Your task to perform on an android device: Search for the new iphone 13 pro on Etsy. Image 0: 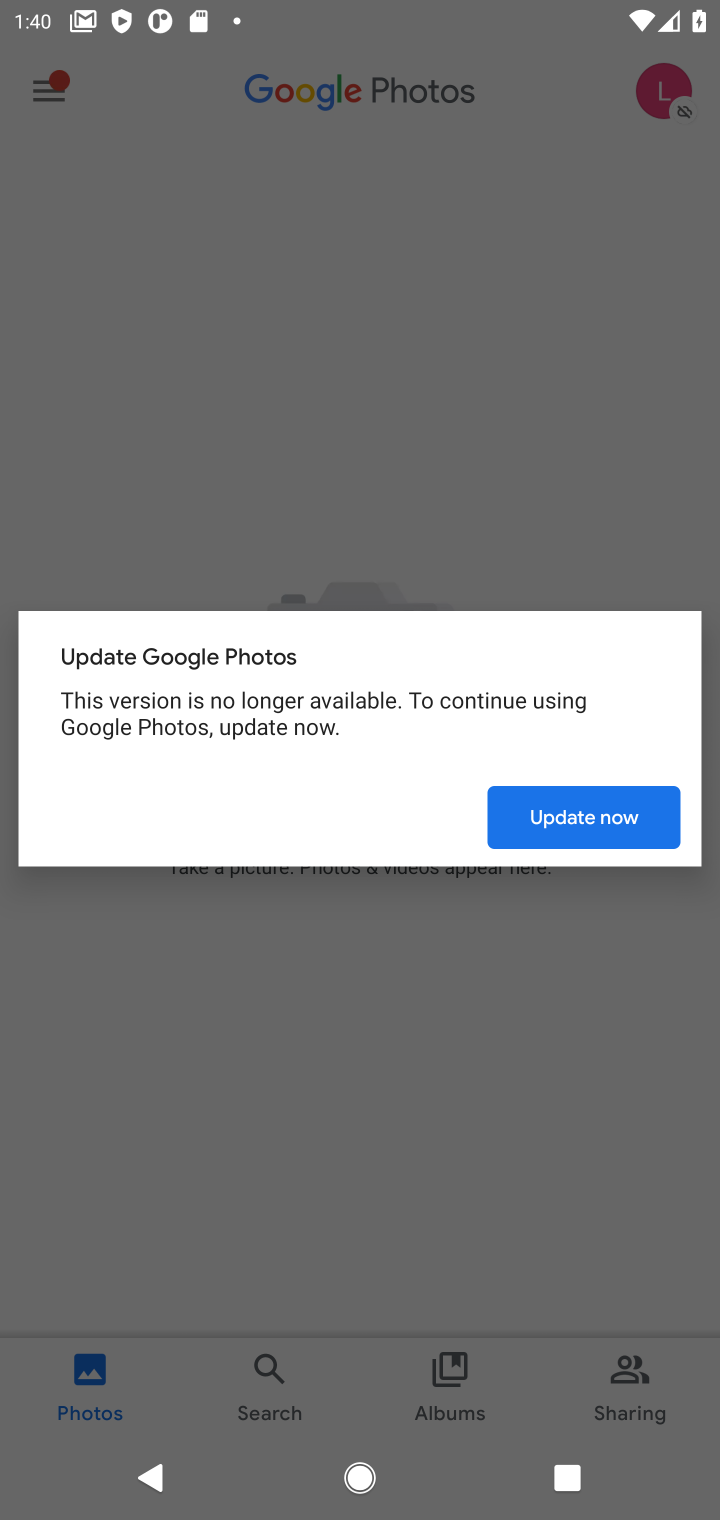
Step 0: press home button
Your task to perform on an android device: Search for the new iphone 13 pro on Etsy. Image 1: 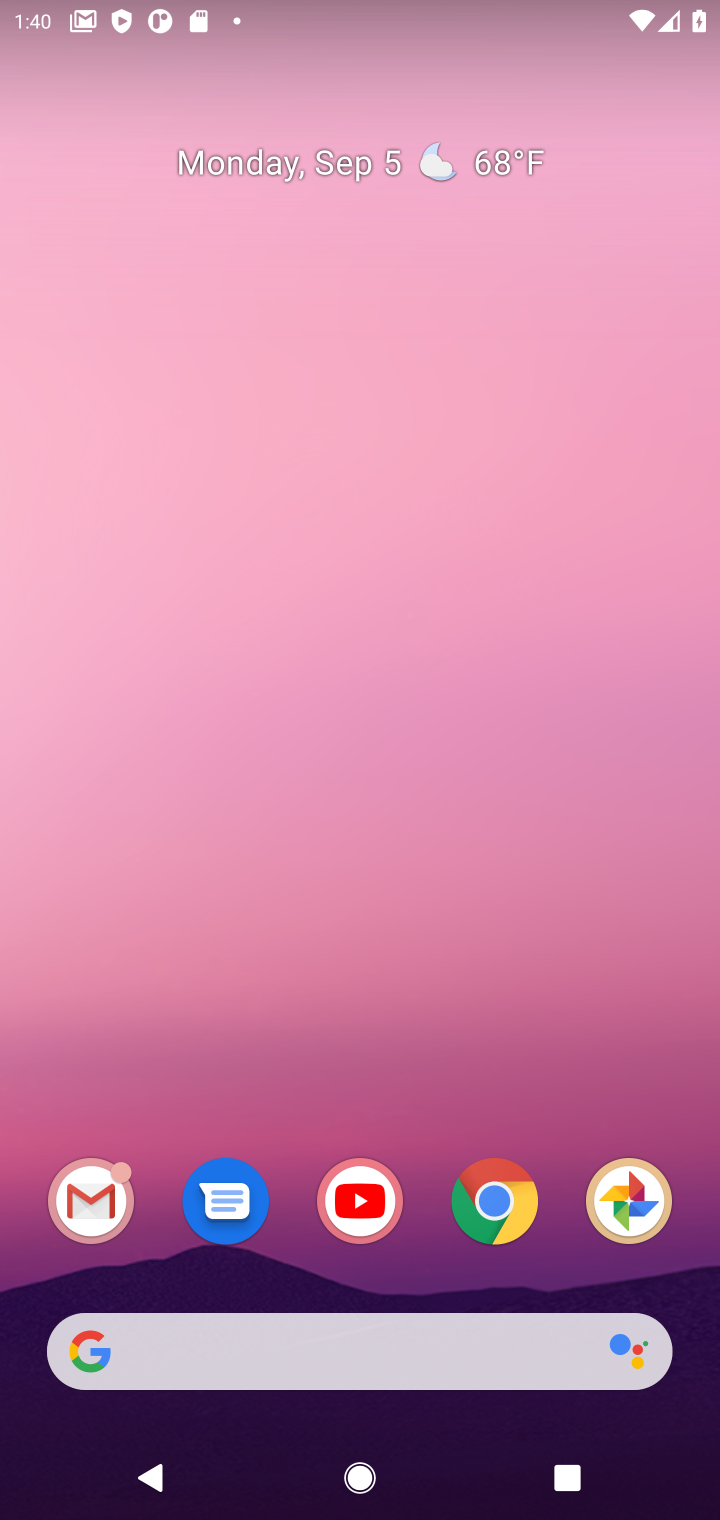
Step 1: click (498, 1214)
Your task to perform on an android device: Search for the new iphone 13 pro on Etsy. Image 2: 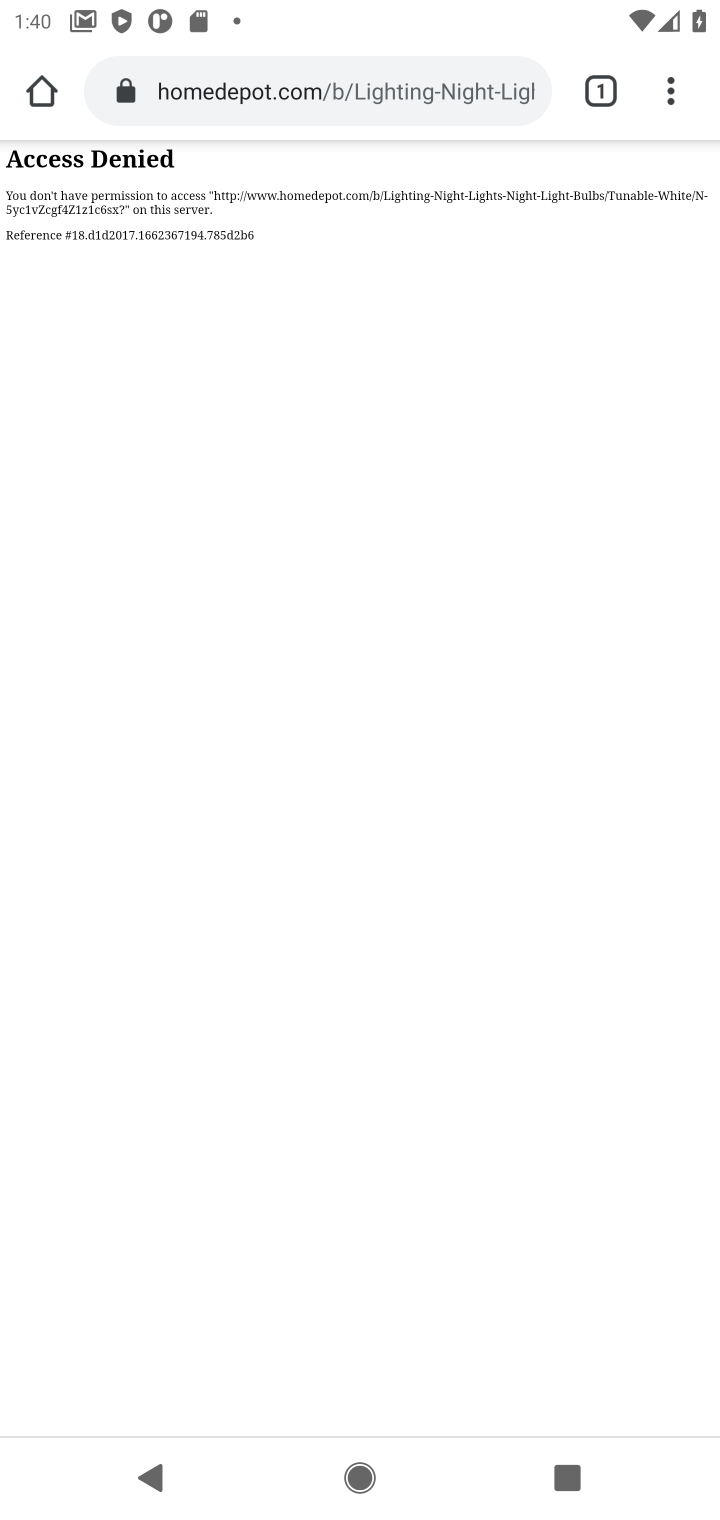
Step 2: click (349, 91)
Your task to perform on an android device: Search for the new iphone 13 pro on Etsy. Image 3: 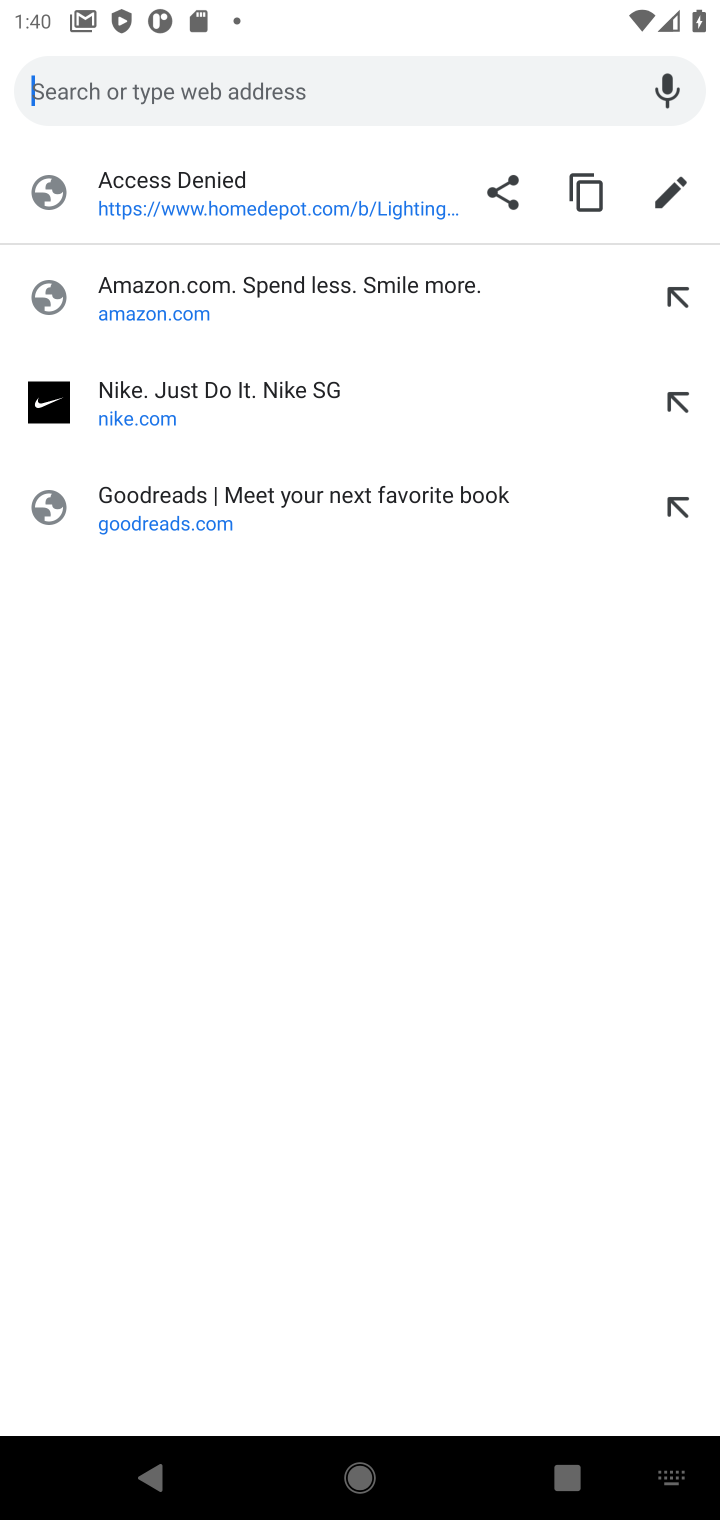
Step 3: type "Etsy"
Your task to perform on an android device: Search for the new iphone 13 pro on Etsy. Image 4: 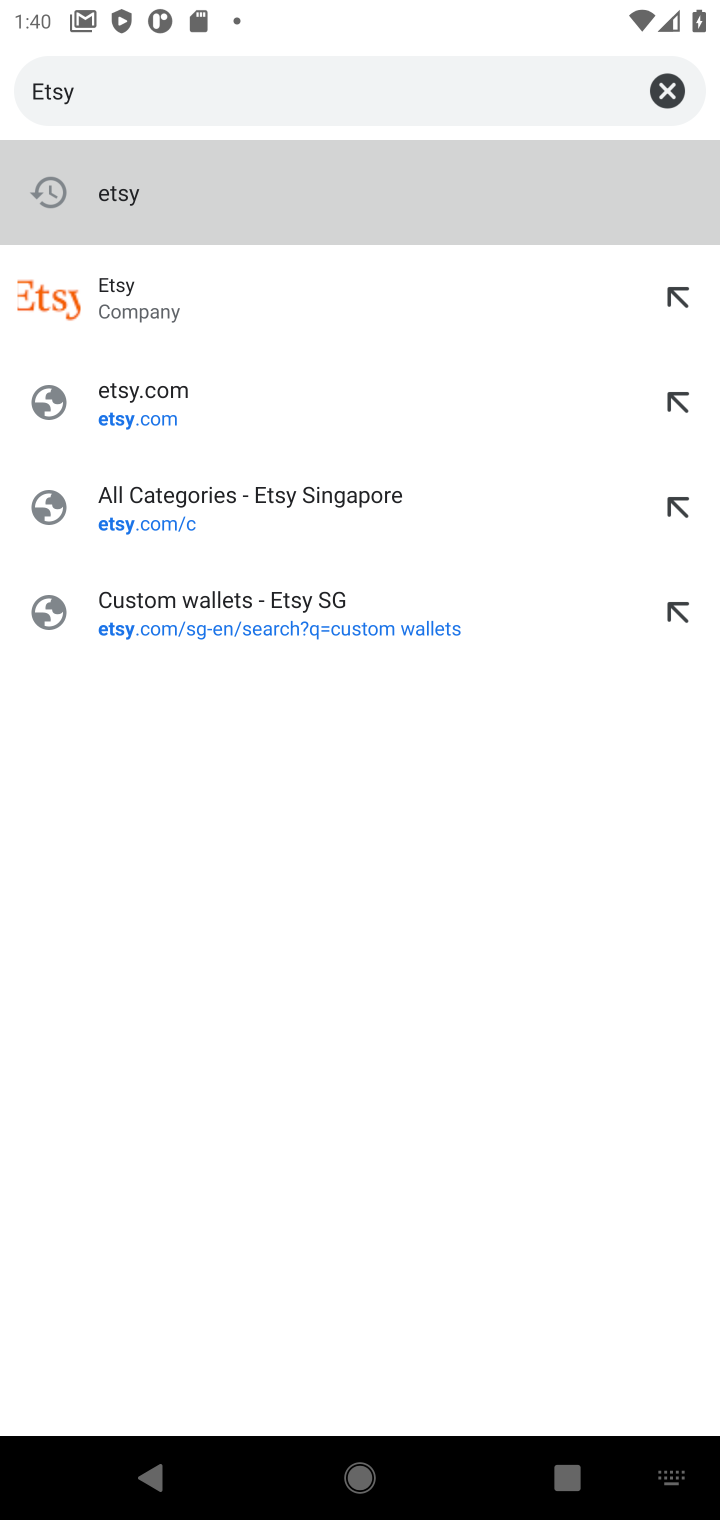
Step 4: press enter
Your task to perform on an android device: Search for the new iphone 13 pro on Etsy. Image 5: 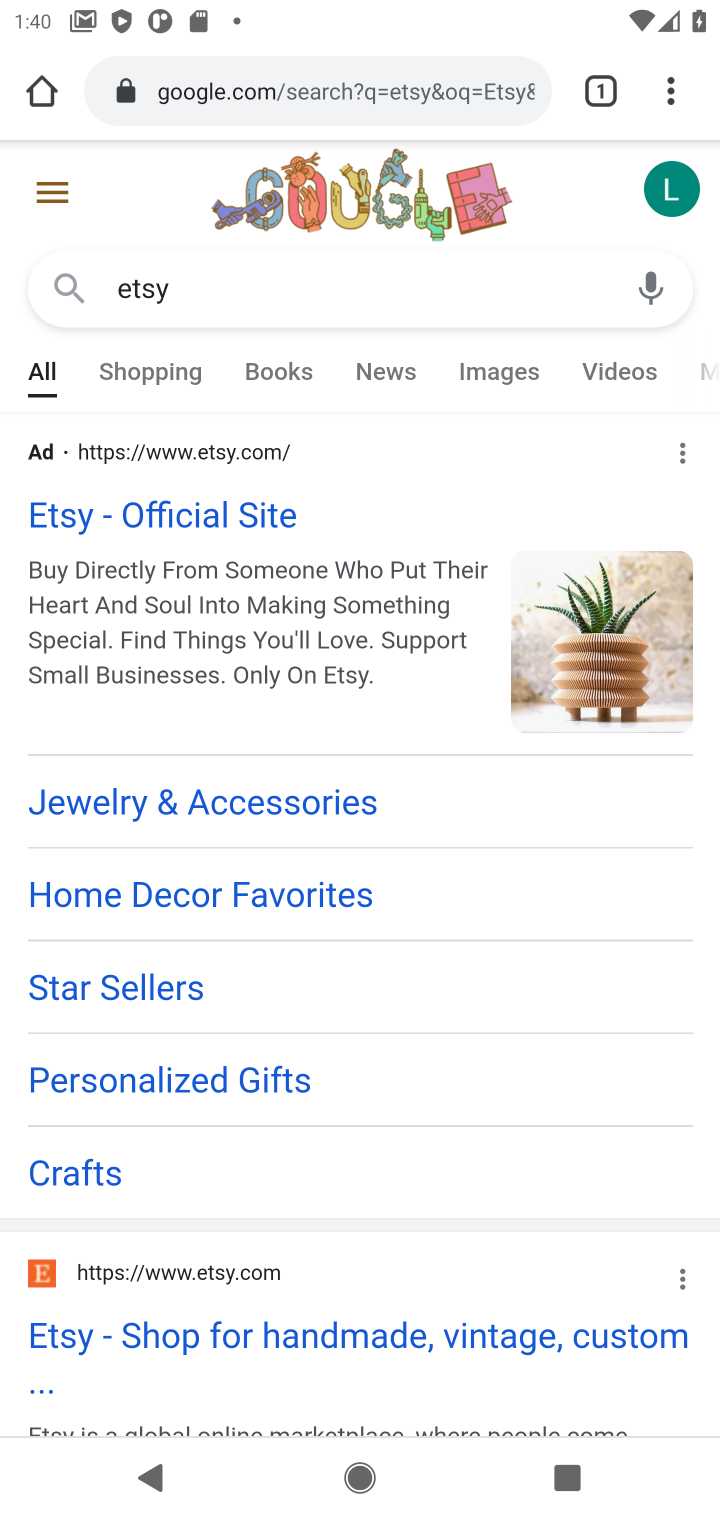
Step 5: click (163, 512)
Your task to perform on an android device: Search for the new iphone 13 pro on Etsy. Image 6: 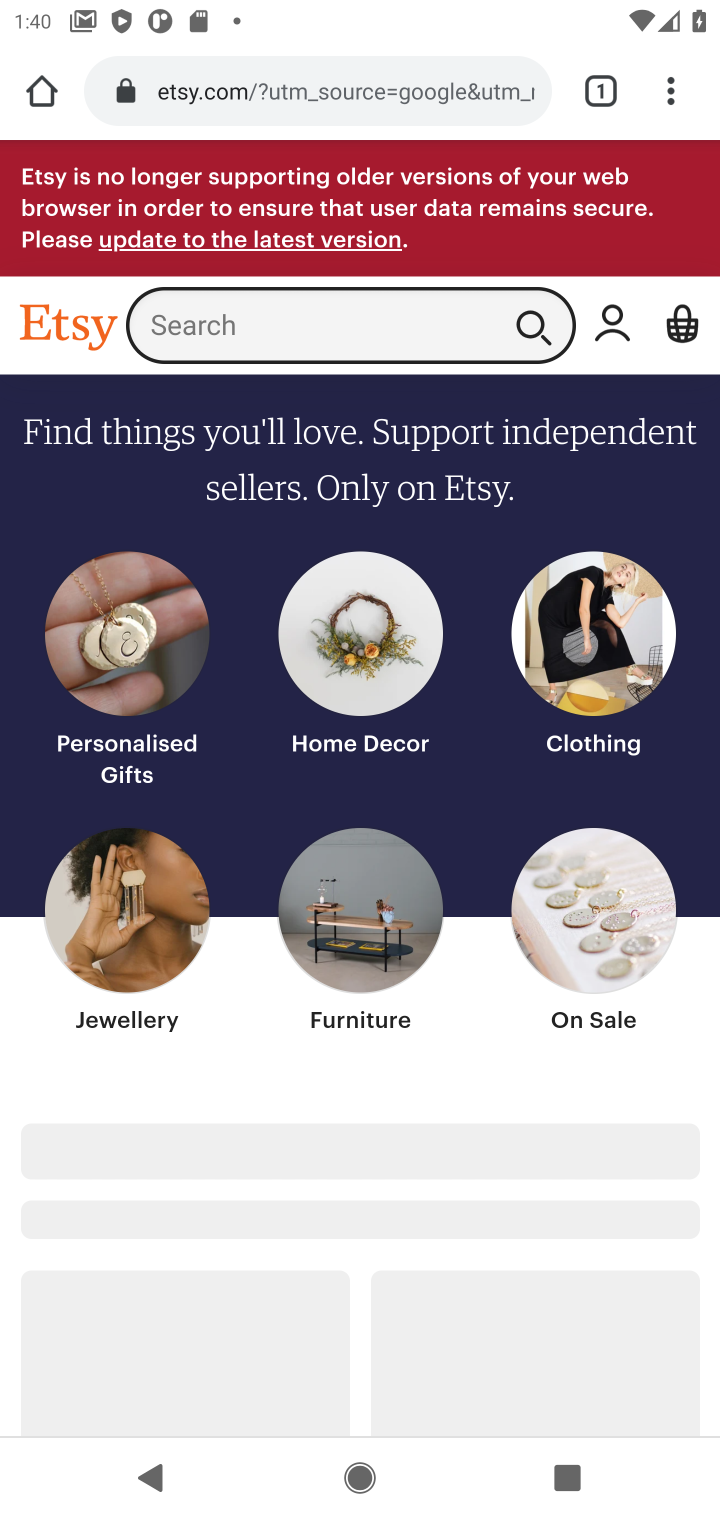
Step 6: click (439, 92)
Your task to perform on an android device: Search for the new iphone 13 pro on Etsy. Image 7: 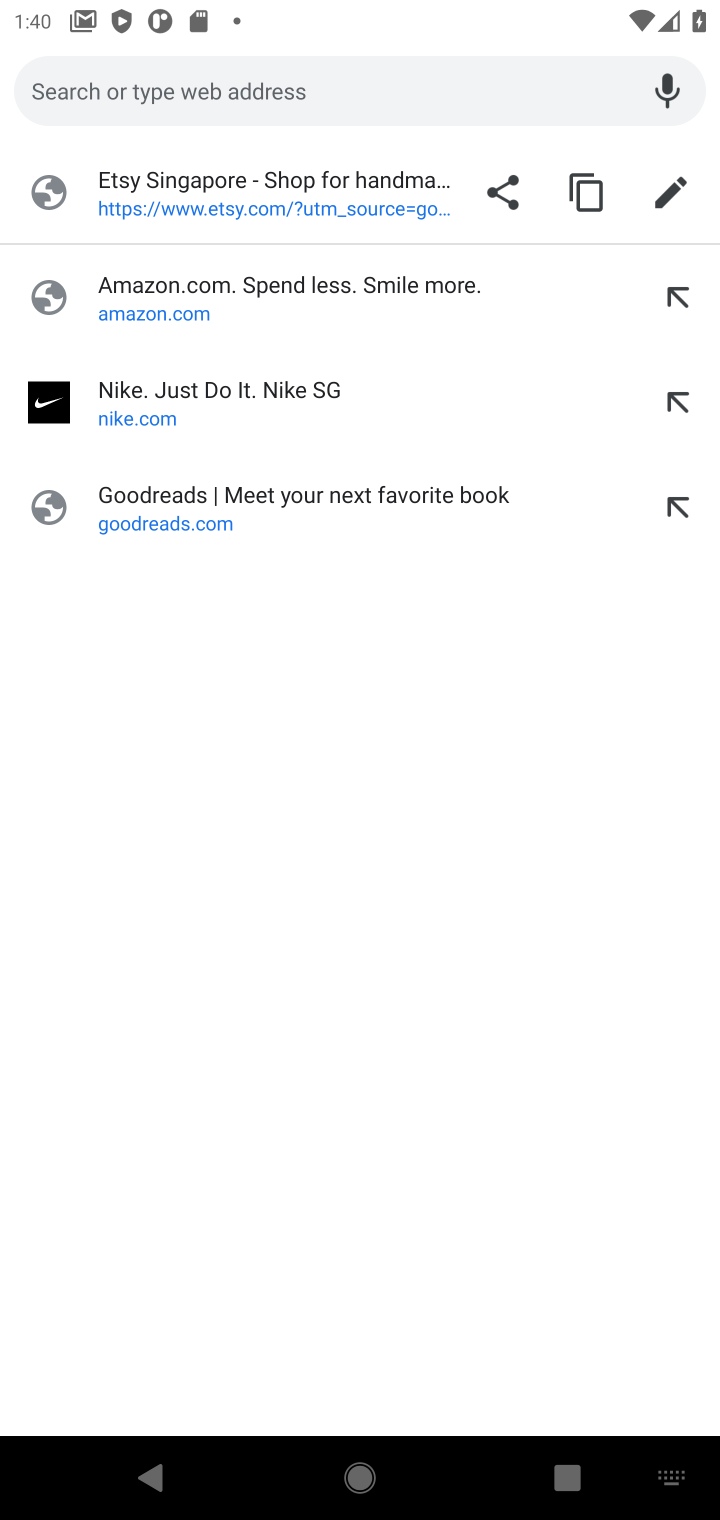
Step 7: press enter
Your task to perform on an android device: Search for the new iphone 13 pro on Etsy. Image 8: 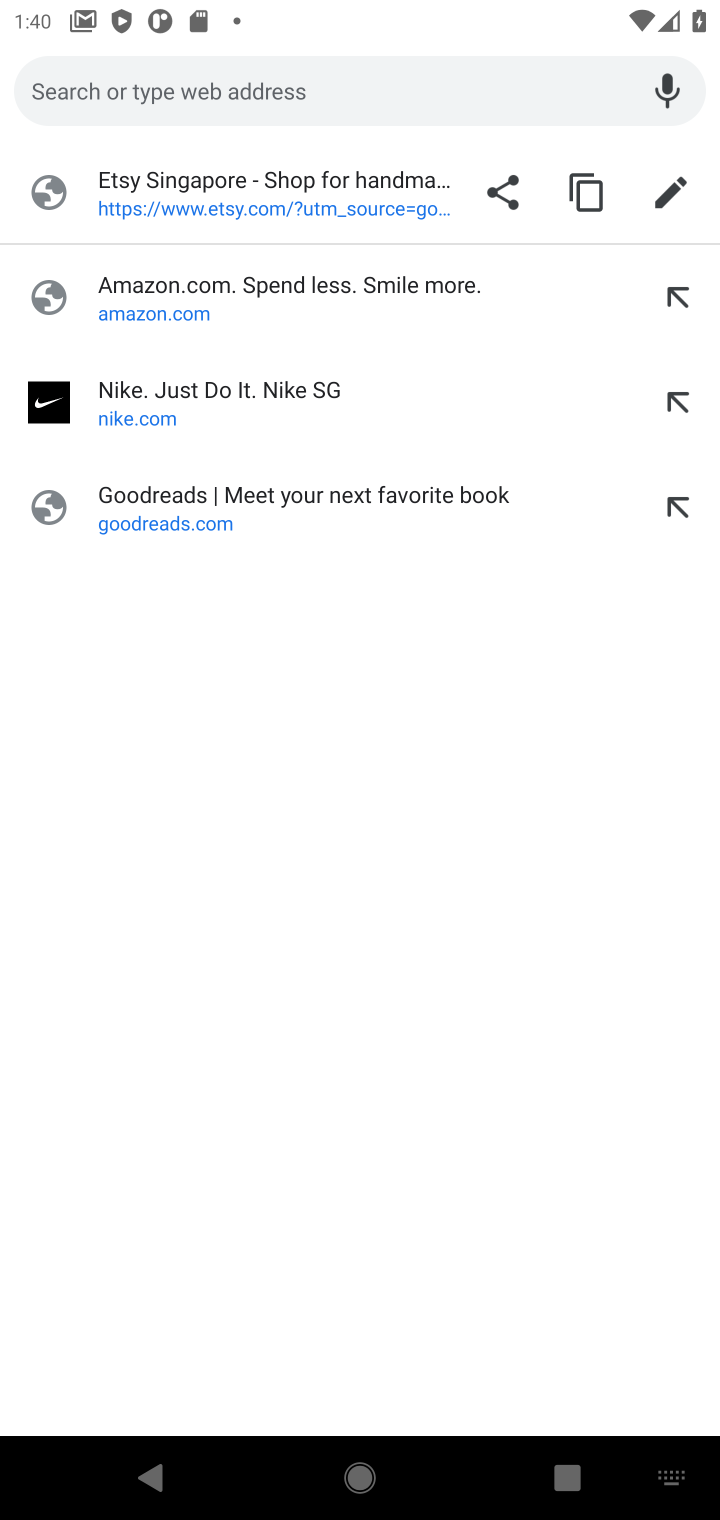
Step 8: type " iphone 13 pro"
Your task to perform on an android device: Search for the new iphone 13 pro on Etsy. Image 9: 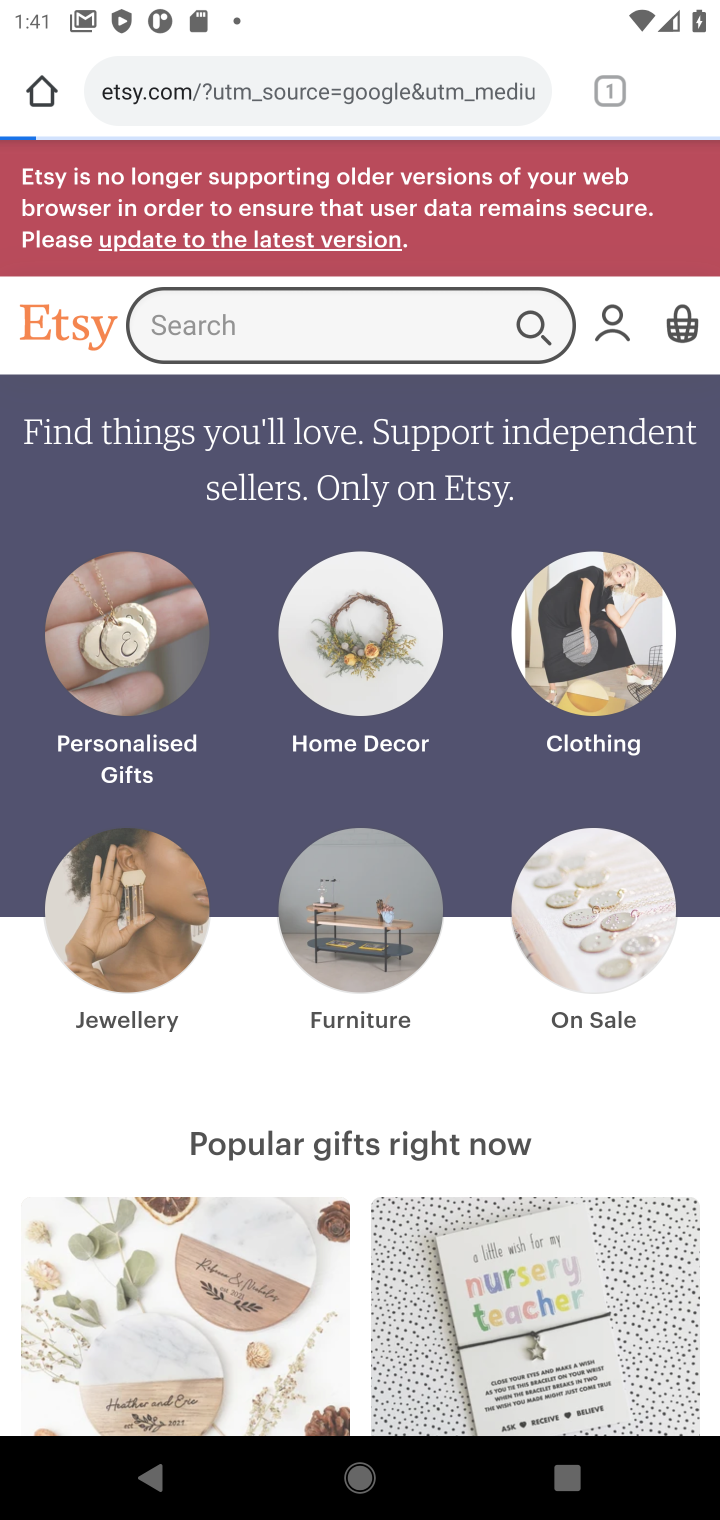
Step 9: click (286, 84)
Your task to perform on an android device: Search for the new iphone 13 pro on Etsy. Image 10: 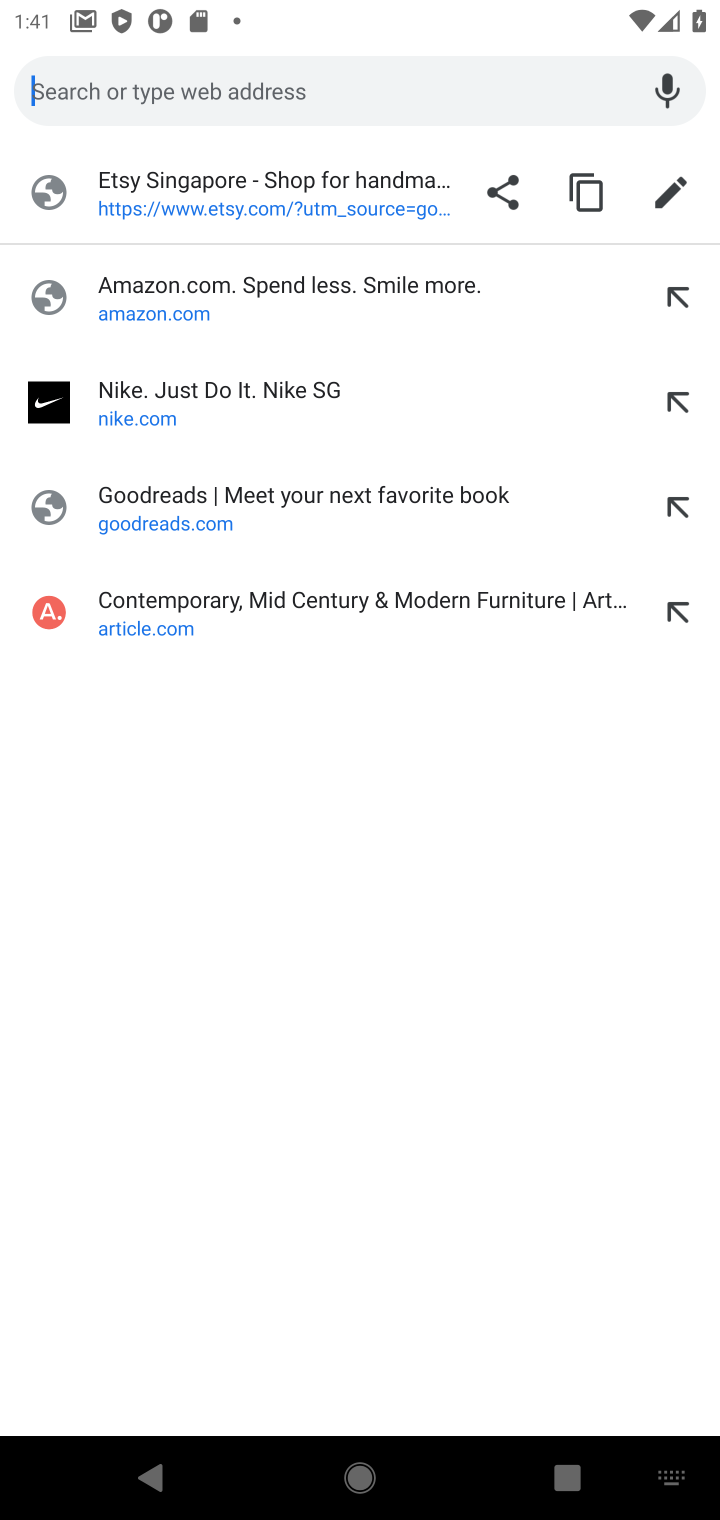
Step 10: press back button
Your task to perform on an android device: Search for the new iphone 13 pro on Etsy. Image 11: 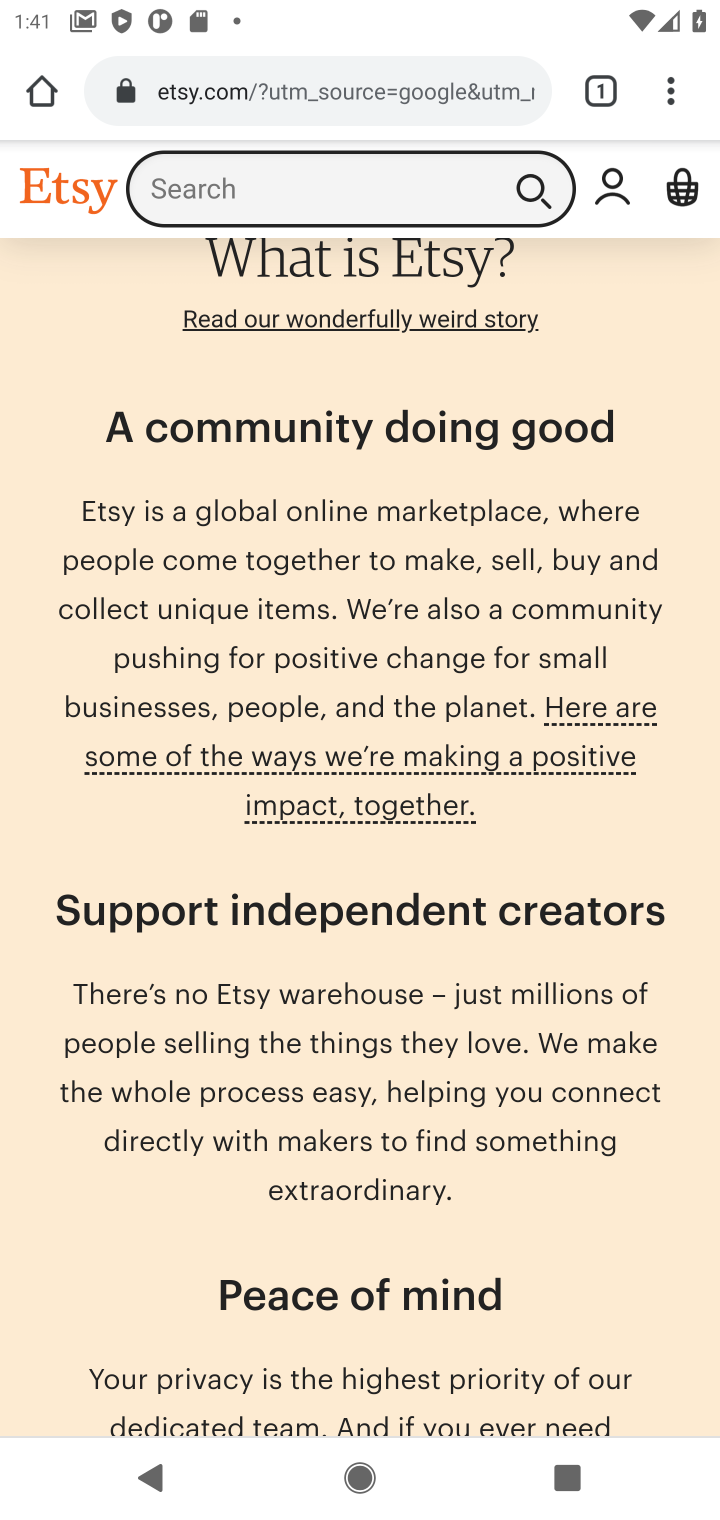
Step 11: click (372, 189)
Your task to perform on an android device: Search for the new iphone 13 pro on Etsy. Image 12: 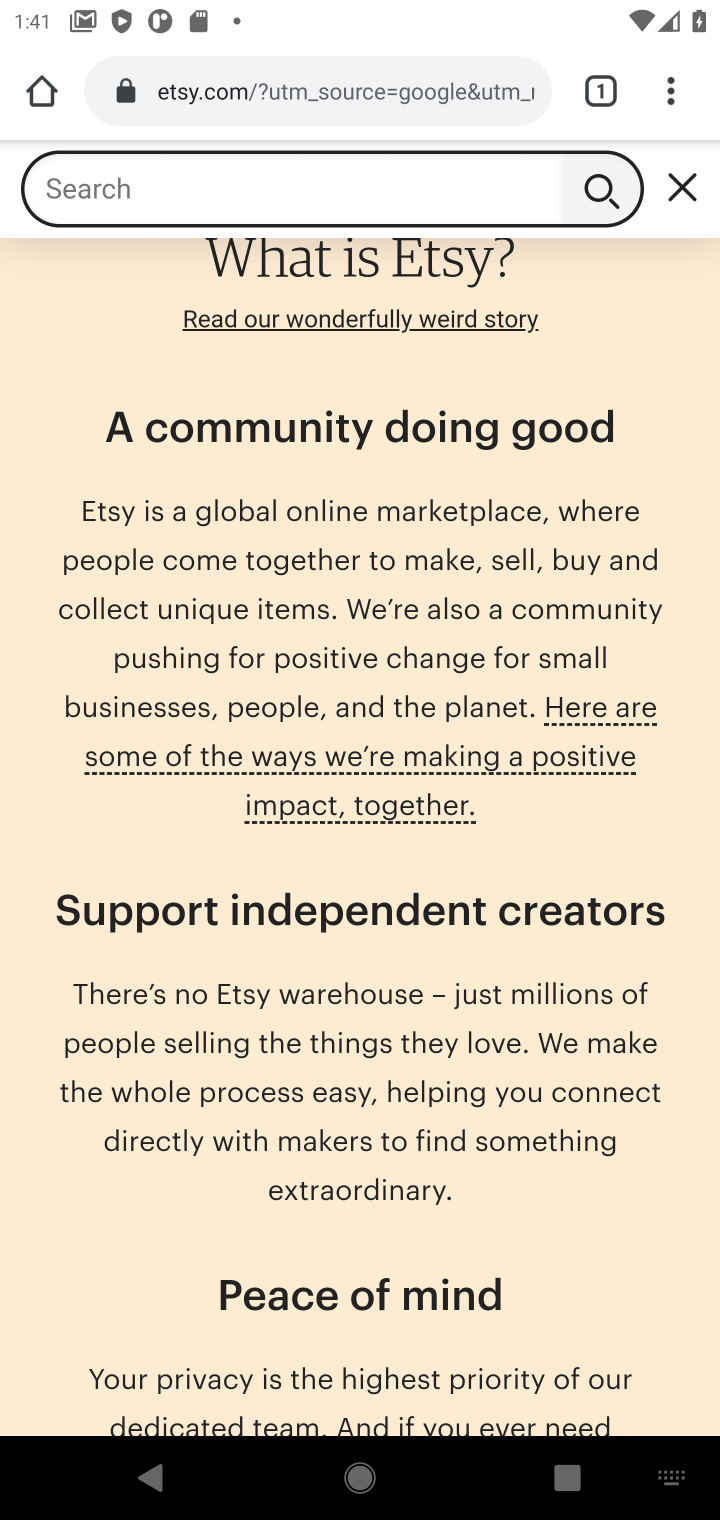
Step 12: type "iphone 13 pro"
Your task to perform on an android device: Search for the new iphone 13 pro on Etsy. Image 13: 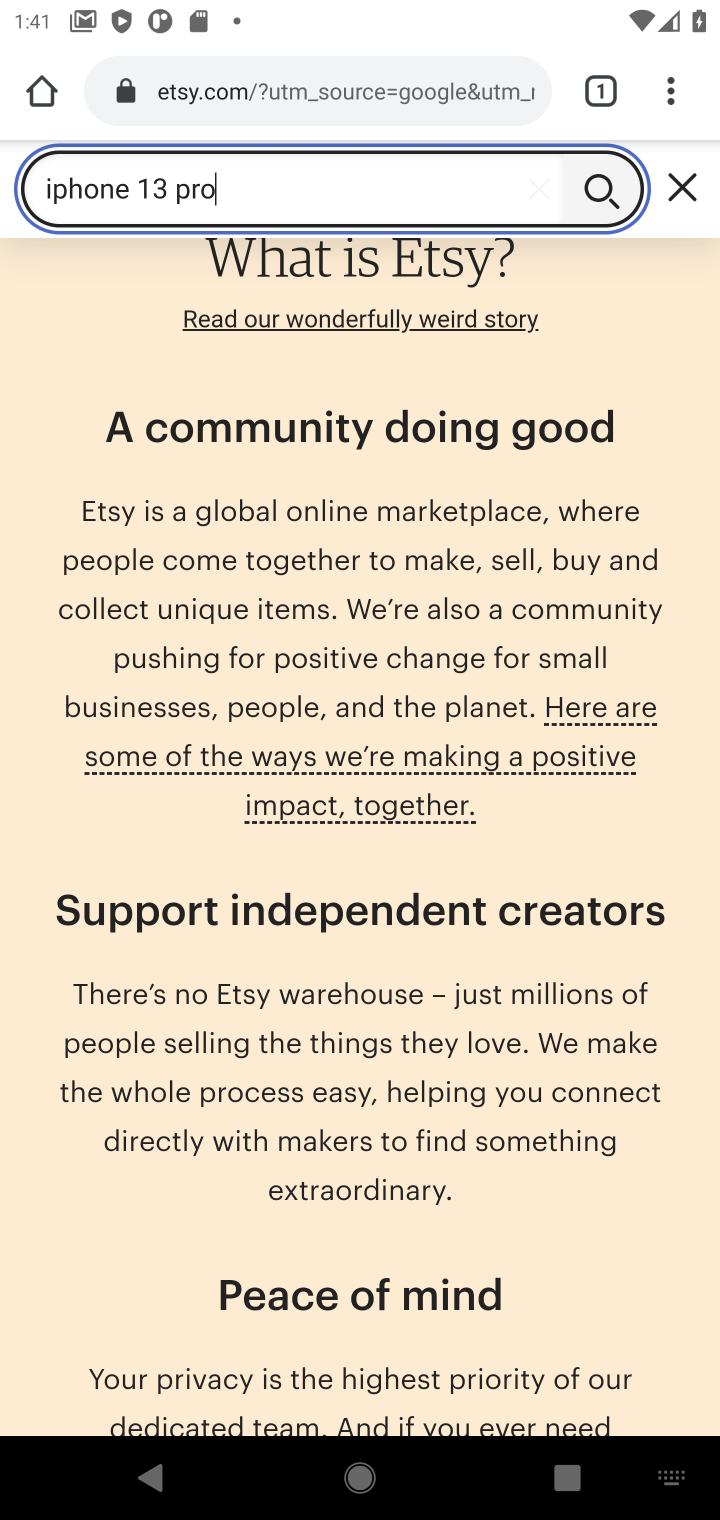
Step 13: press enter
Your task to perform on an android device: Search for the new iphone 13 pro on Etsy. Image 14: 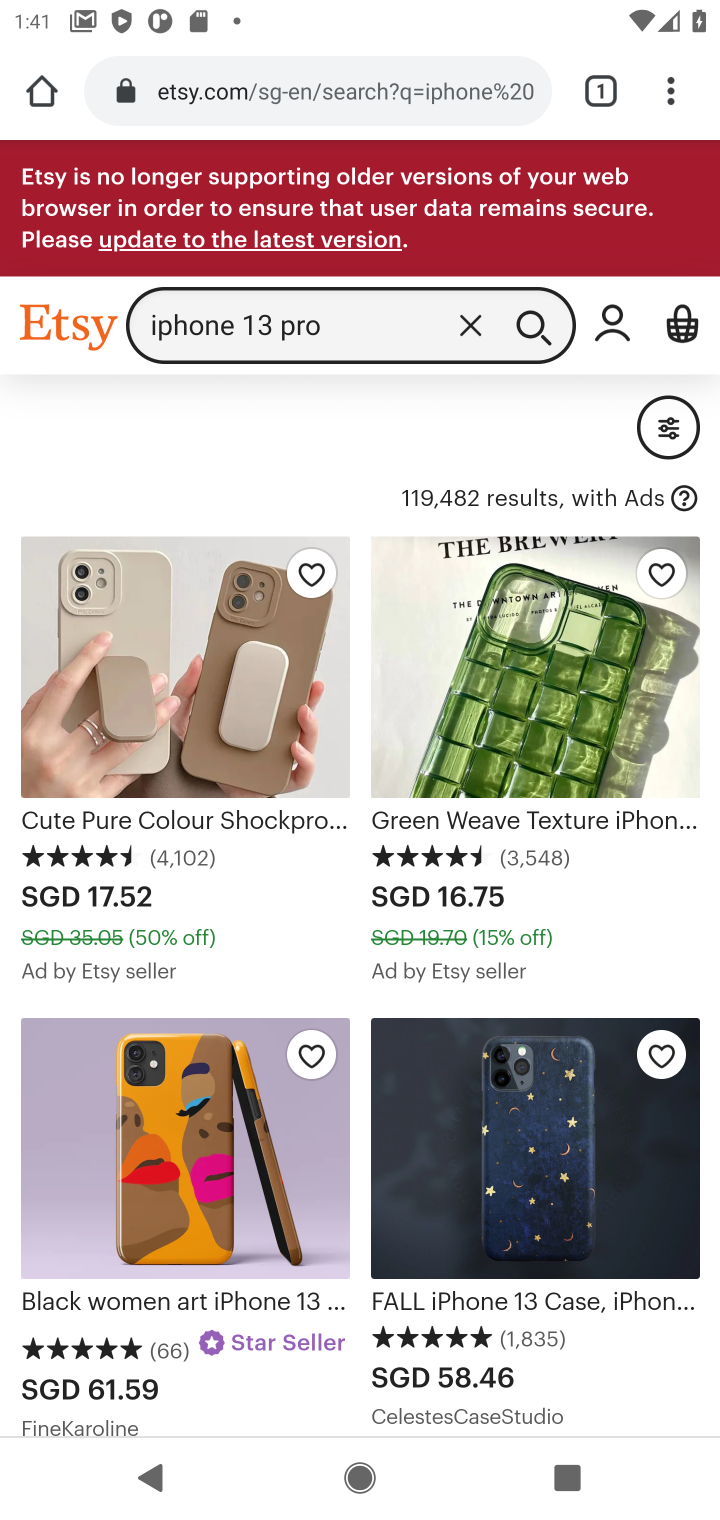
Step 14: drag from (329, 948) to (669, 431)
Your task to perform on an android device: Search for the new iphone 13 pro on Etsy. Image 15: 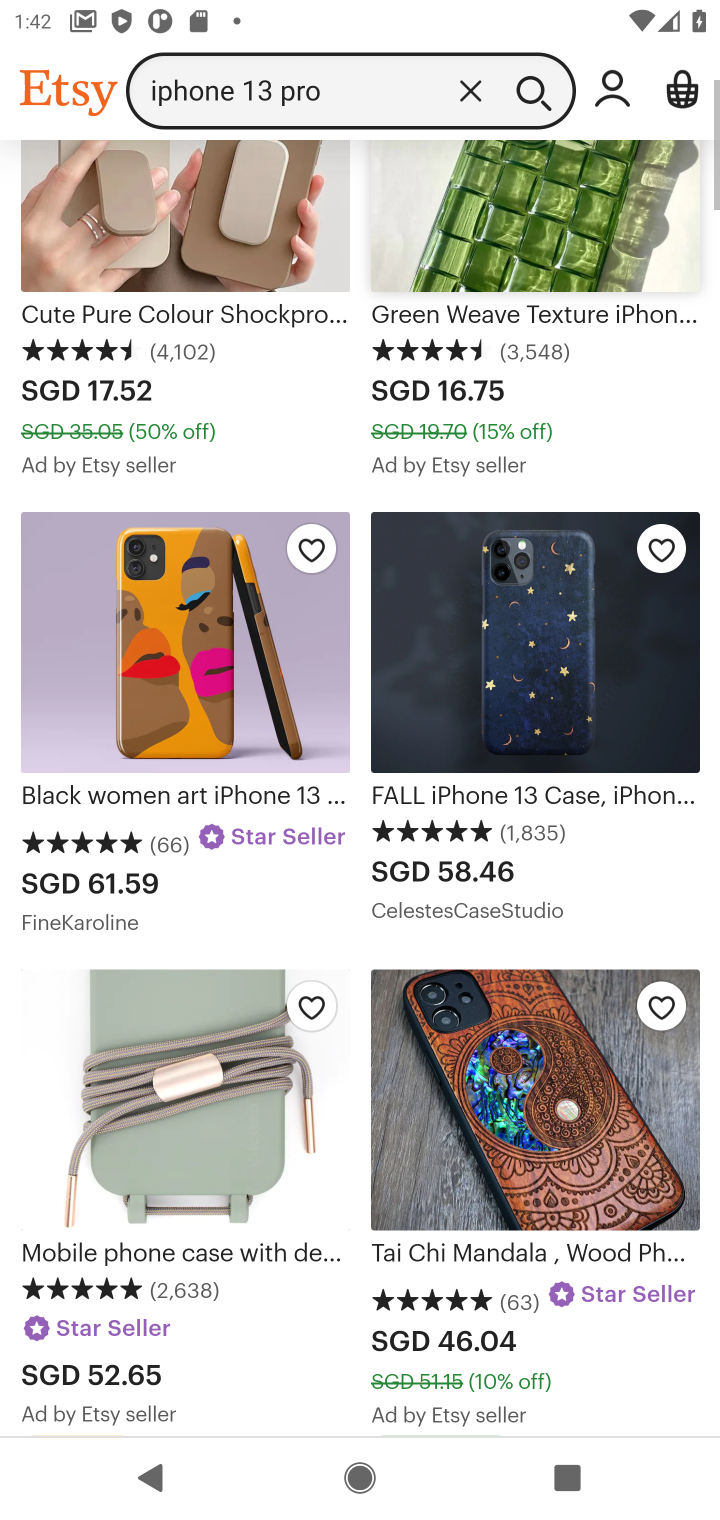
Step 15: drag from (454, 945) to (559, 542)
Your task to perform on an android device: Search for the new iphone 13 pro on Etsy. Image 16: 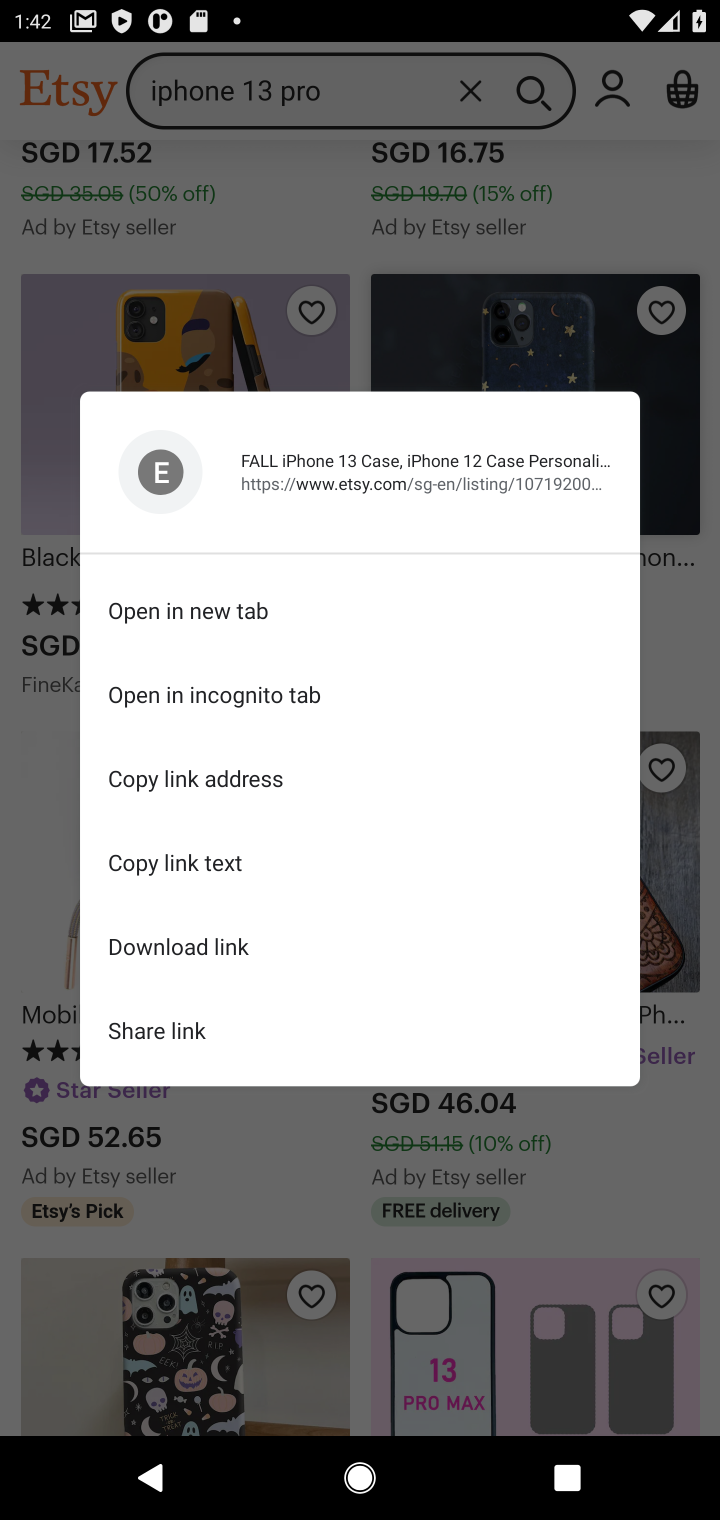
Step 16: click (602, 1173)
Your task to perform on an android device: Search for the new iphone 13 pro on Etsy. Image 17: 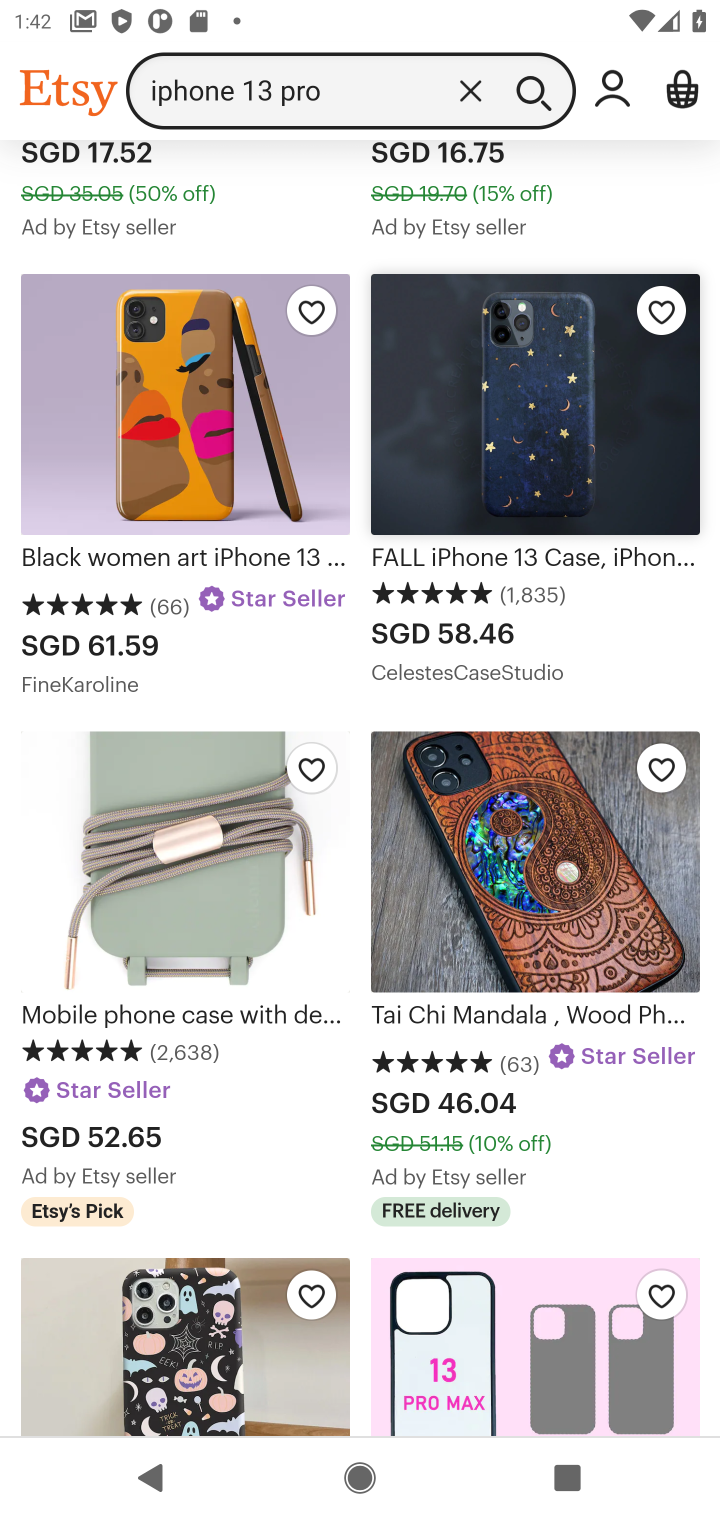
Step 17: task complete